Your task to perform on an android device: turn off location history Image 0: 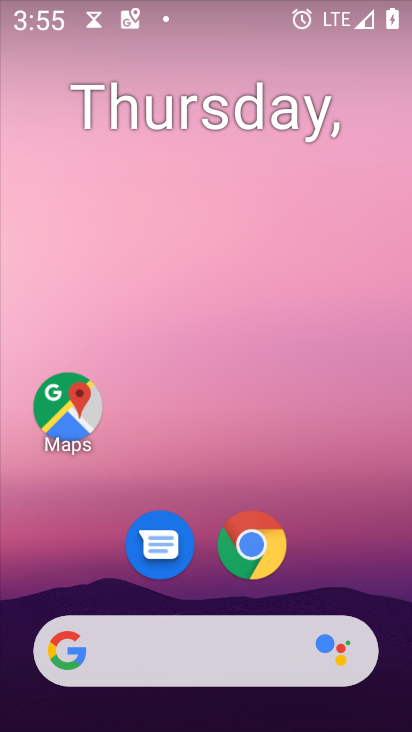
Step 0: drag from (395, 535) to (342, 21)
Your task to perform on an android device: turn off location history Image 1: 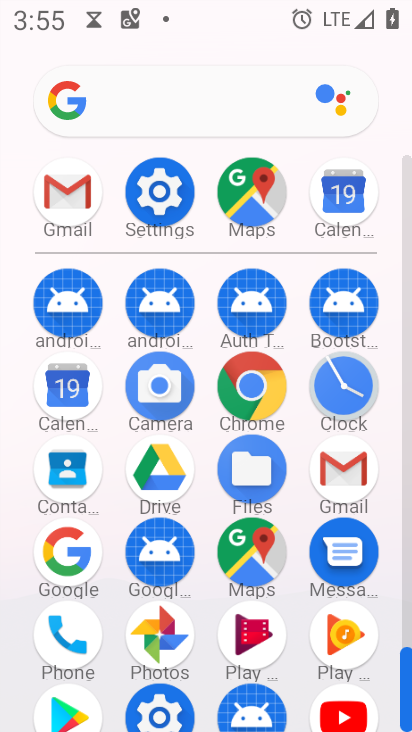
Step 1: click (169, 196)
Your task to perform on an android device: turn off location history Image 2: 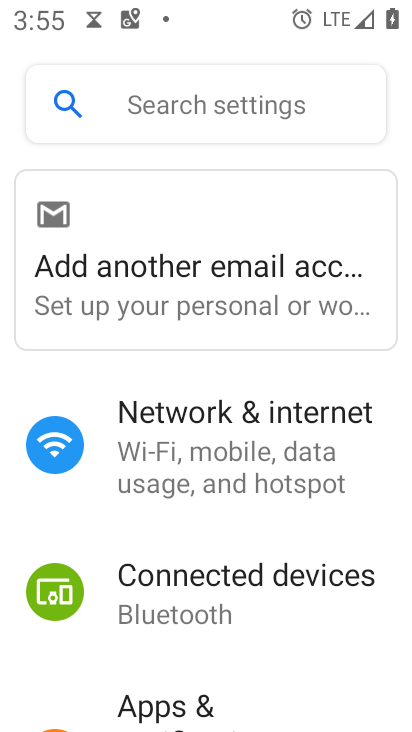
Step 2: drag from (290, 625) to (372, 215)
Your task to perform on an android device: turn off location history Image 3: 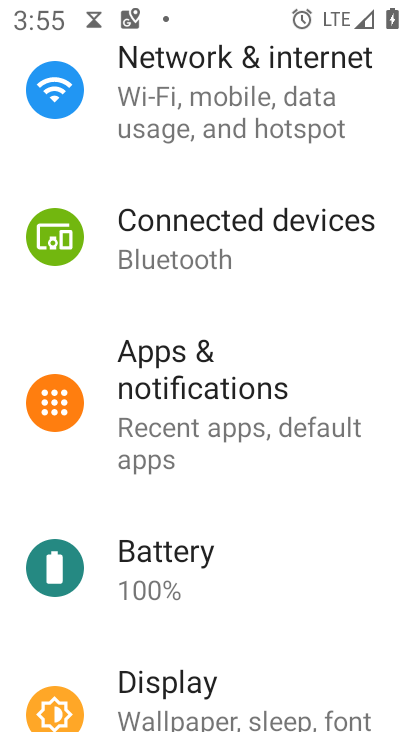
Step 3: drag from (310, 562) to (309, 205)
Your task to perform on an android device: turn off location history Image 4: 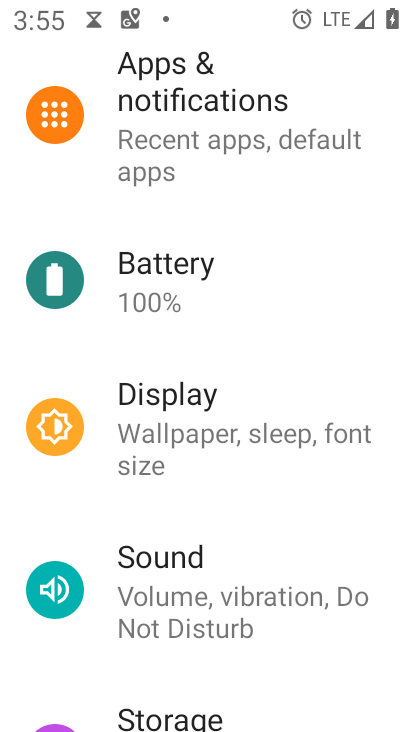
Step 4: drag from (277, 653) to (240, 205)
Your task to perform on an android device: turn off location history Image 5: 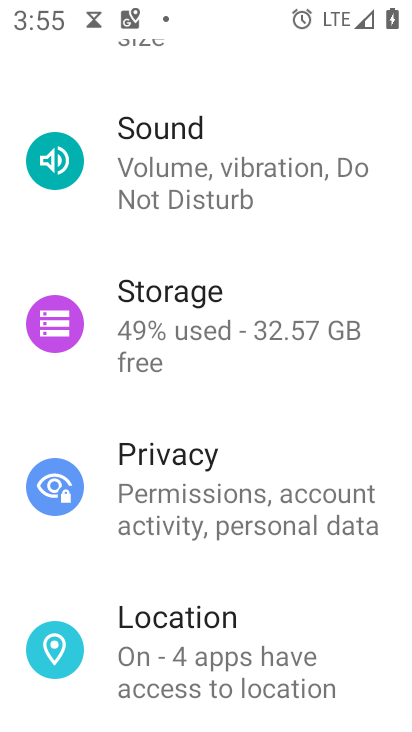
Step 5: click (194, 631)
Your task to perform on an android device: turn off location history Image 6: 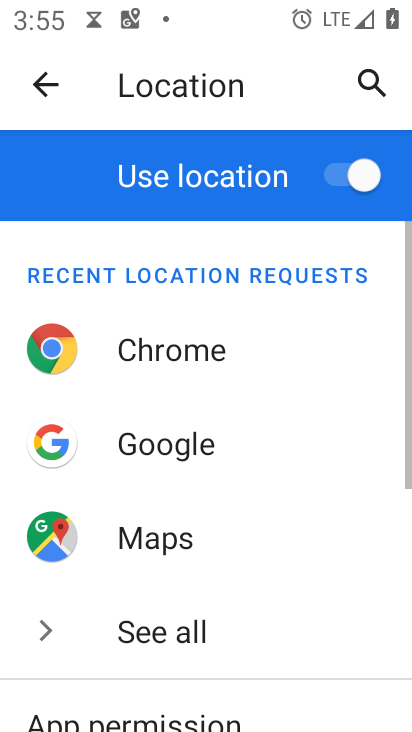
Step 6: click (349, 180)
Your task to perform on an android device: turn off location history Image 7: 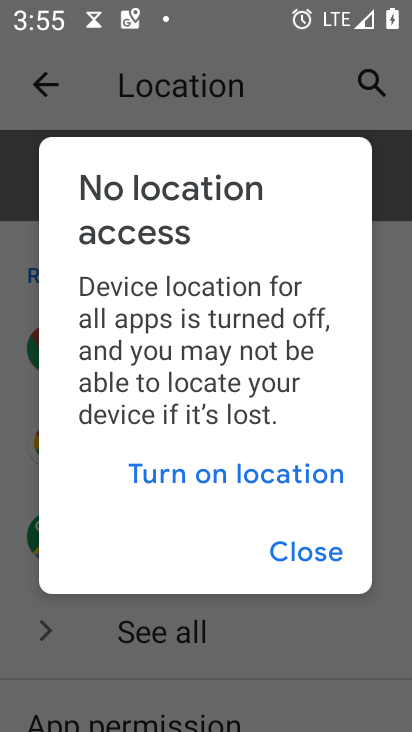
Step 7: task complete